Your task to perform on an android device: add a contact in the contacts app Image 0: 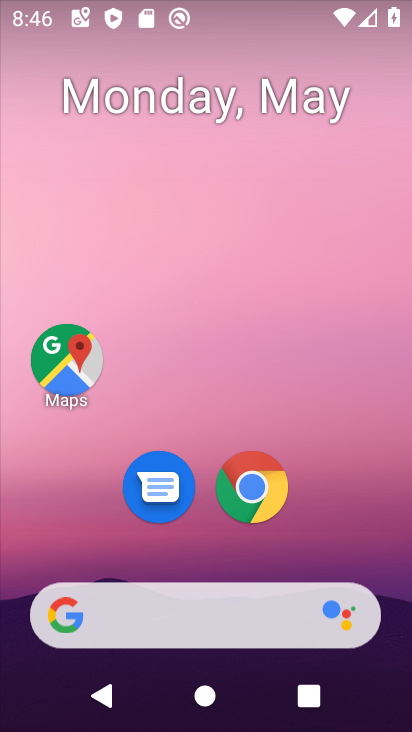
Step 0: drag from (232, 516) to (223, 140)
Your task to perform on an android device: add a contact in the contacts app Image 1: 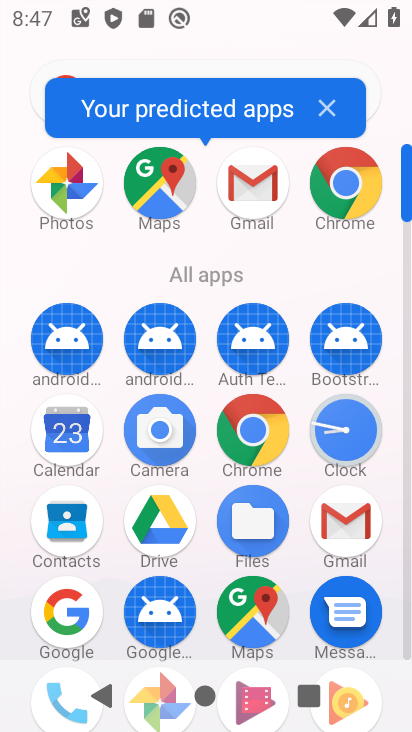
Step 1: drag from (191, 555) to (267, 212)
Your task to perform on an android device: add a contact in the contacts app Image 2: 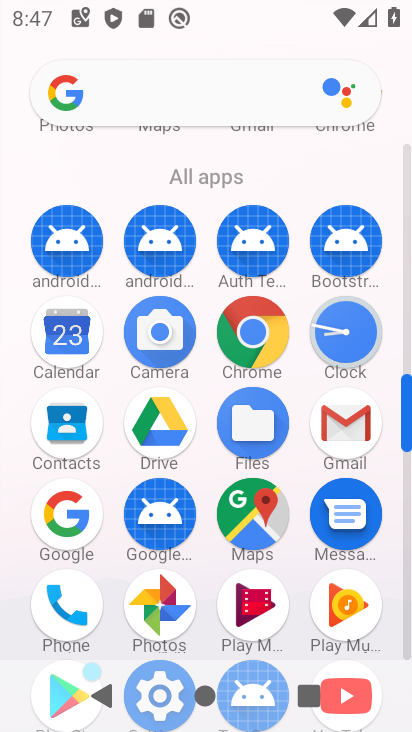
Step 2: click (73, 439)
Your task to perform on an android device: add a contact in the contacts app Image 3: 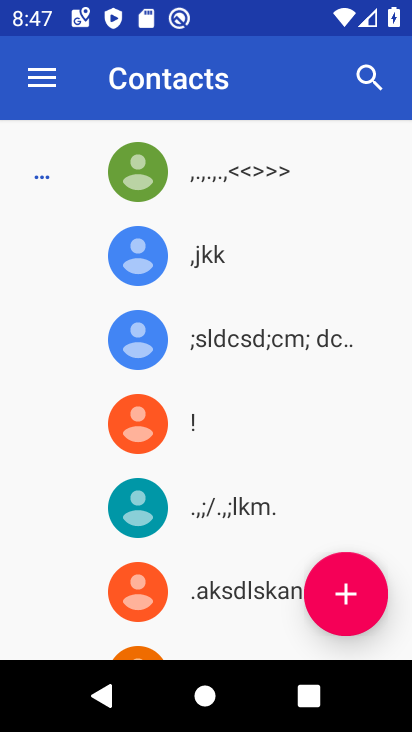
Step 3: click (354, 587)
Your task to perform on an android device: add a contact in the contacts app Image 4: 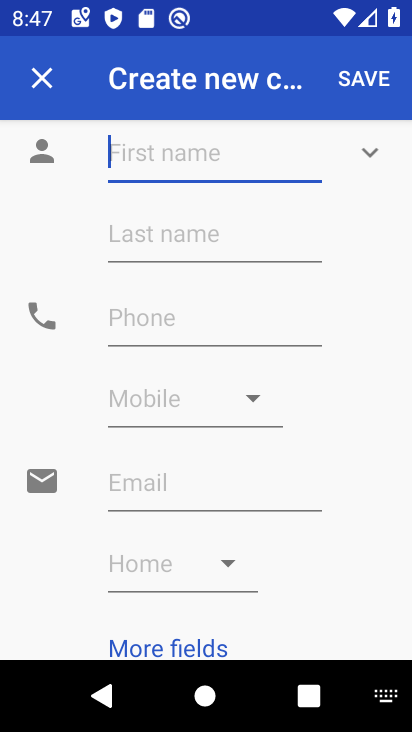
Step 4: click (354, 587)
Your task to perform on an android device: add a contact in the contacts app Image 5: 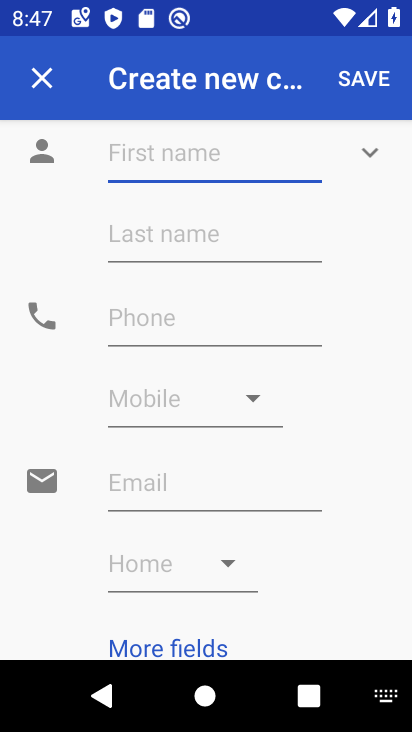
Step 5: type "kkoik"
Your task to perform on an android device: add a contact in the contacts app Image 6: 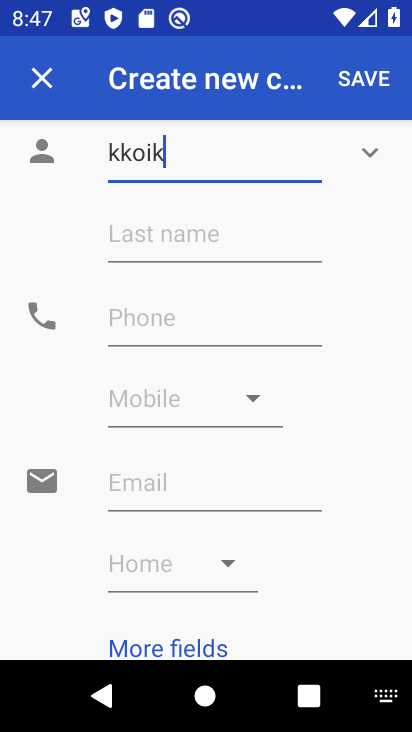
Step 6: click (243, 315)
Your task to perform on an android device: add a contact in the contacts app Image 7: 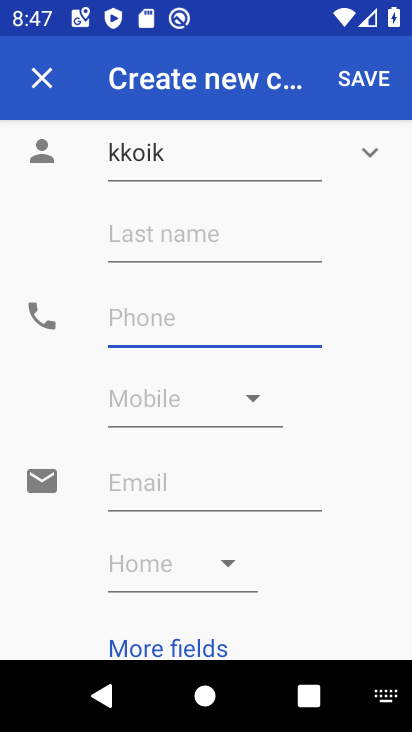
Step 7: type "98765"
Your task to perform on an android device: add a contact in the contacts app Image 8: 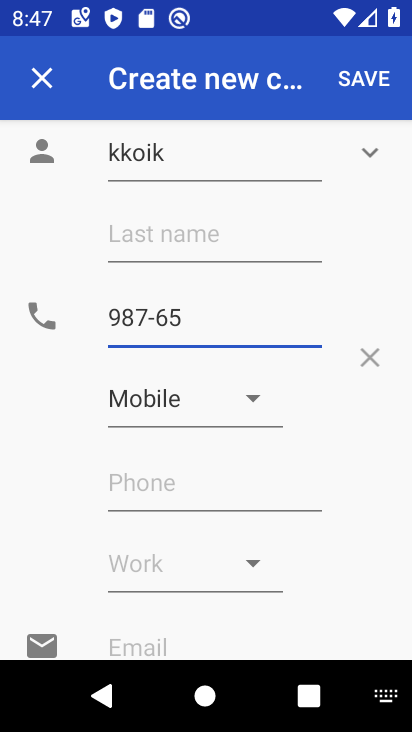
Step 8: click (371, 91)
Your task to perform on an android device: add a contact in the contacts app Image 9: 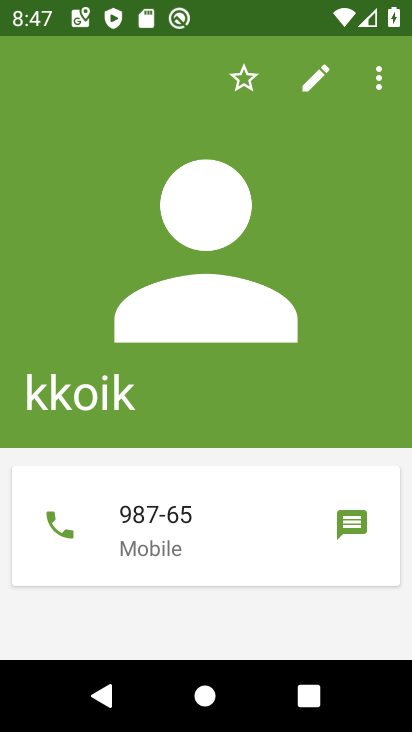
Step 9: task complete